Your task to perform on an android device: change your default location settings in chrome Image 0: 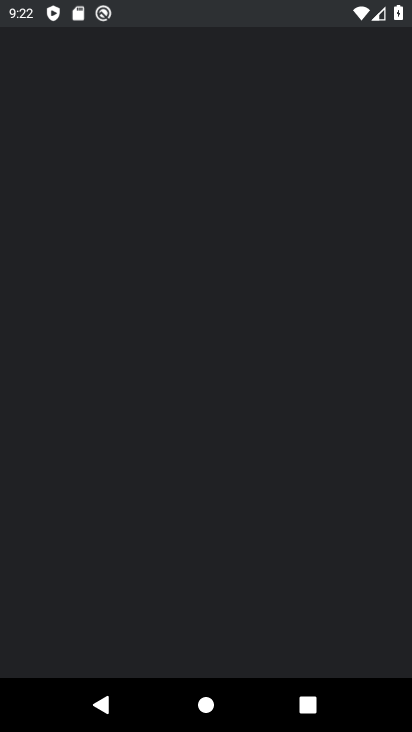
Step 0: click (50, 344)
Your task to perform on an android device: change your default location settings in chrome Image 1: 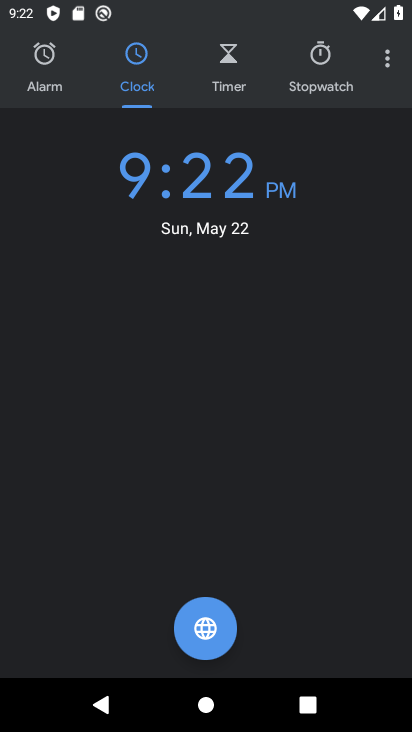
Step 1: press home button
Your task to perform on an android device: change your default location settings in chrome Image 2: 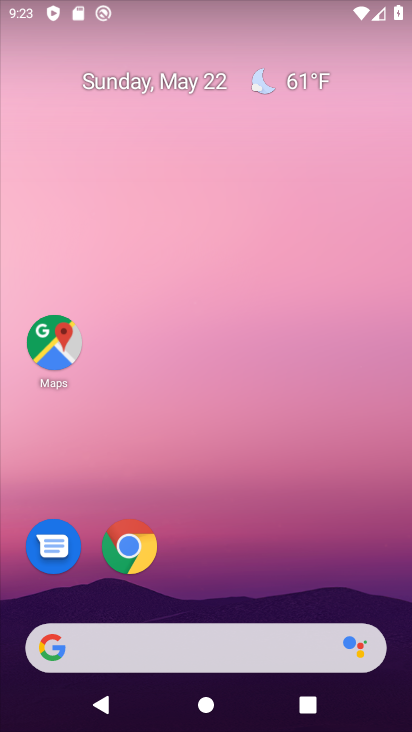
Step 2: click (122, 563)
Your task to perform on an android device: change your default location settings in chrome Image 3: 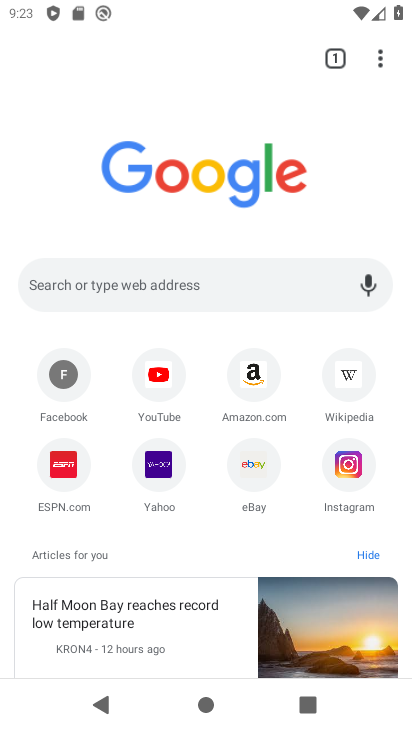
Step 3: drag from (385, 58) to (175, 498)
Your task to perform on an android device: change your default location settings in chrome Image 4: 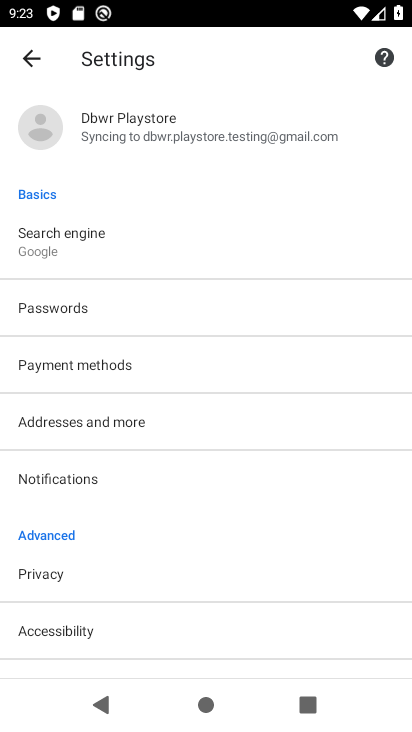
Step 4: drag from (94, 614) to (138, 184)
Your task to perform on an android device: change your default location settings in chrome Image 5: 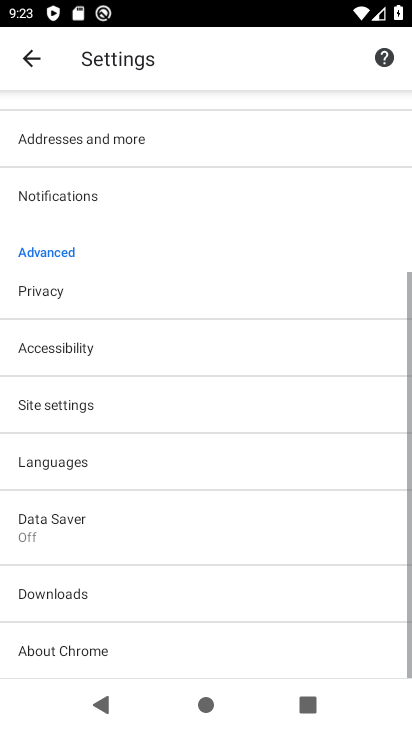
Step 5: click (68, 407)
Your task to perform on an android device: change your default location settings in chrome Image 6: 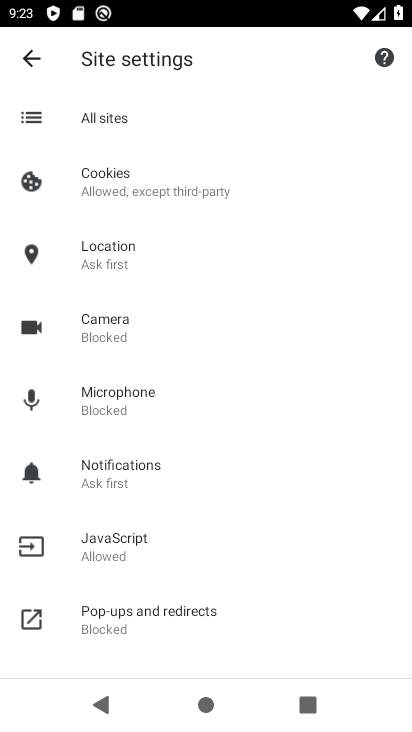
Step 6: click (118, 247)
Your task to perform on an android device: change your default location settings in chrome Image 7: 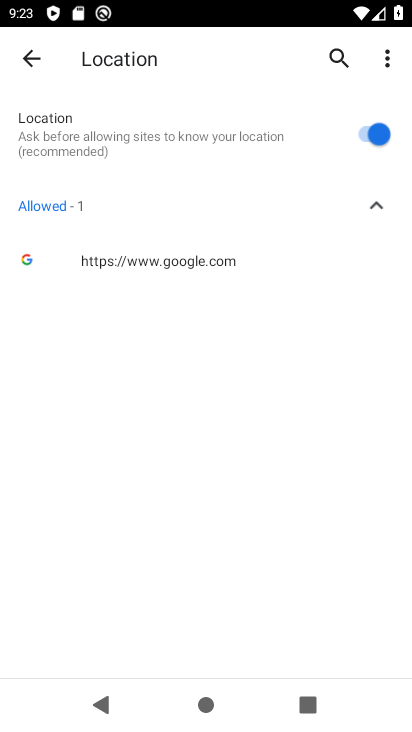
Step 7: click (407, 132)
Your task to perform on an android device: change your default location settings in chrome Image 8: 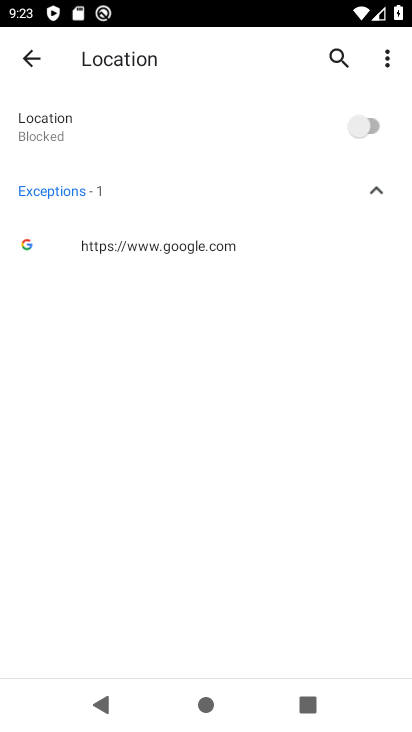
Step 8: task complete